Your task to perform on an android device: Go to settings Image 0: 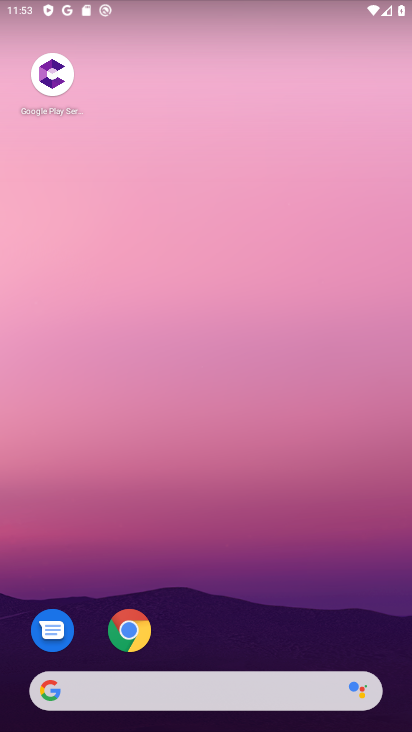
Step 0: drag from (223, 681) to (261, 229)
Your task to perform on an android device: Go to settings Image 1: 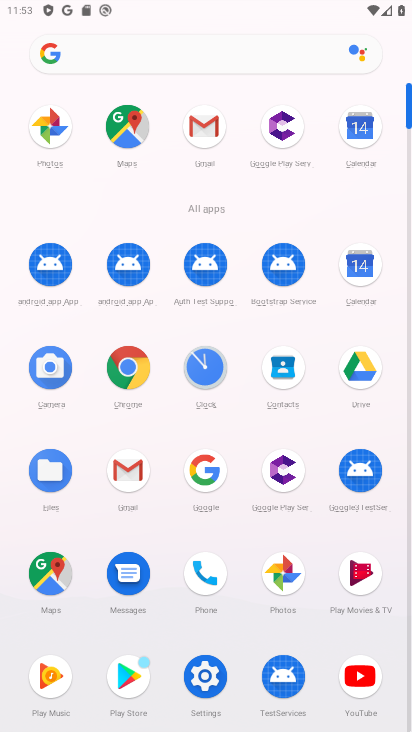
Step 1: drag from (224, 618) to (272, 157)
Your task to perform on an android device: Go to settings Image 2: 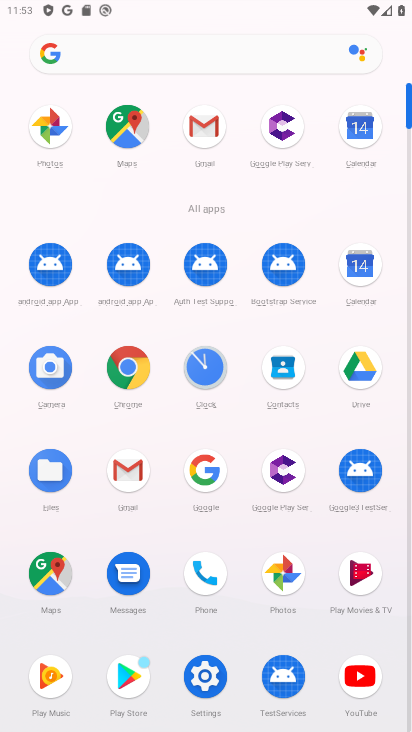
Step 2: click (206, 684)
Your task to perform on an android device: Go to settings Image 3: 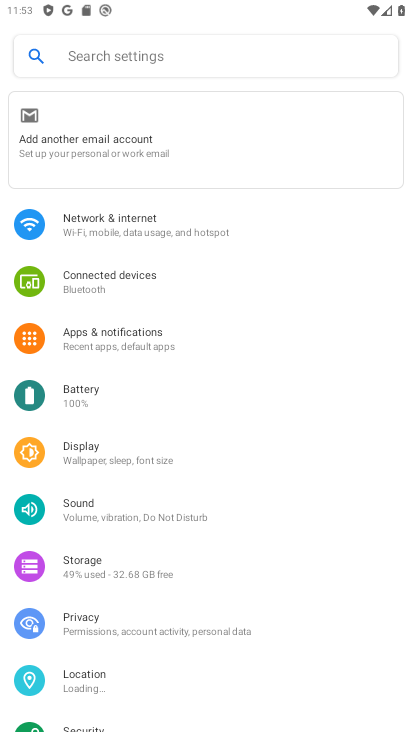
Step 3: task complete